Your task to perform on an android device: Open the stopwatch Image 0: 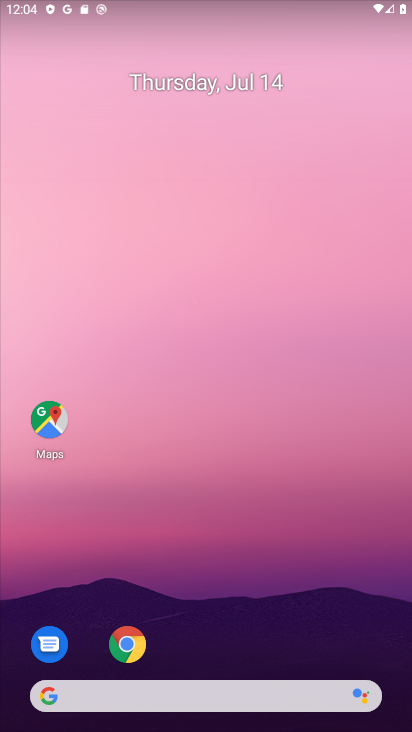
Step 0: drag from (283, 581) to (306, 4)
Your task to perform on an android device: Open the stopwatch Image 1: 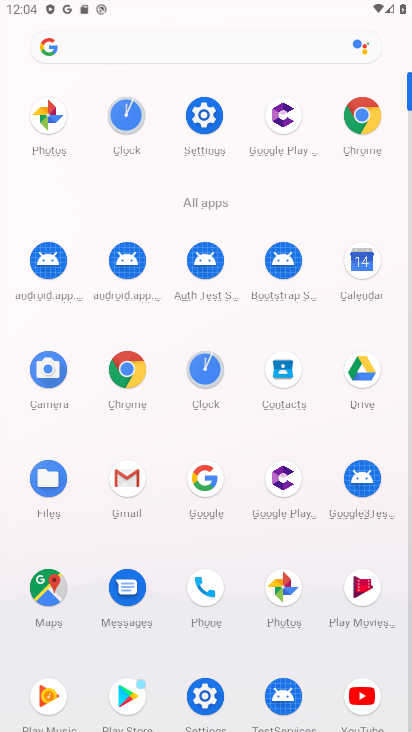
Step 1: click (205, 378)
Your task to perform on an android device: Open the stopwatch Image 2: 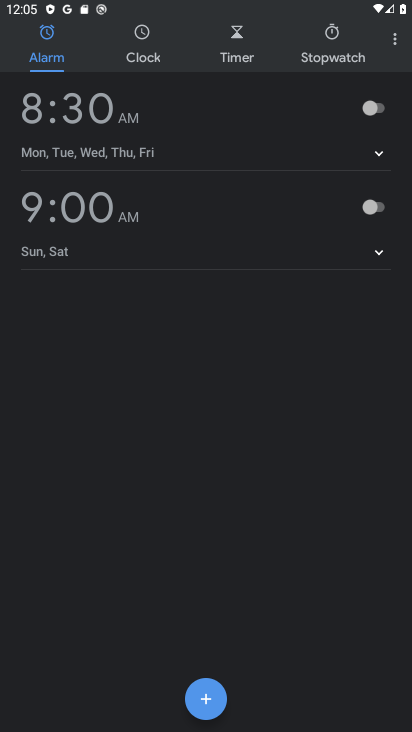
Step 2: click (317, 57)
Your task to perform on an android device: Open the stopwatch Image 3: 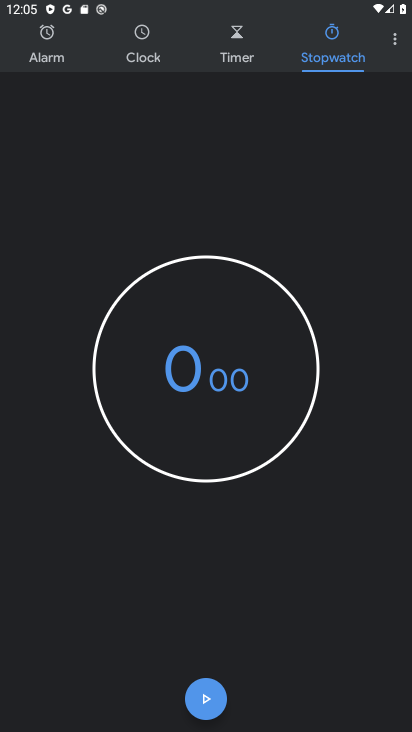
Step 3: task complete